Your task to perform on an android device: Go to Reddit.com Image 0: 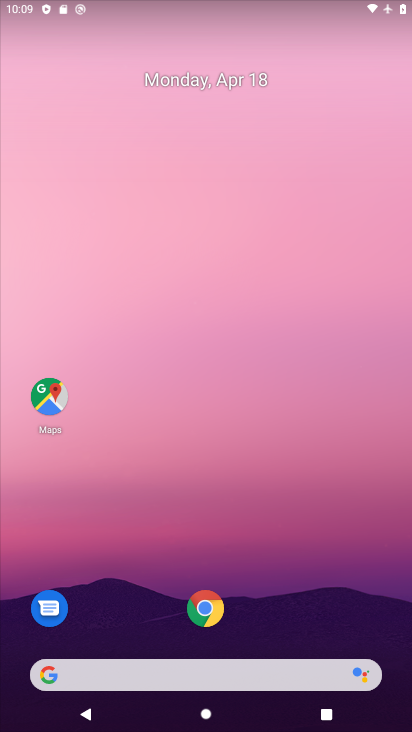
Step 0: click (217, 612)
Your task to perform on an android device: Go to Reddit.com Image 1: 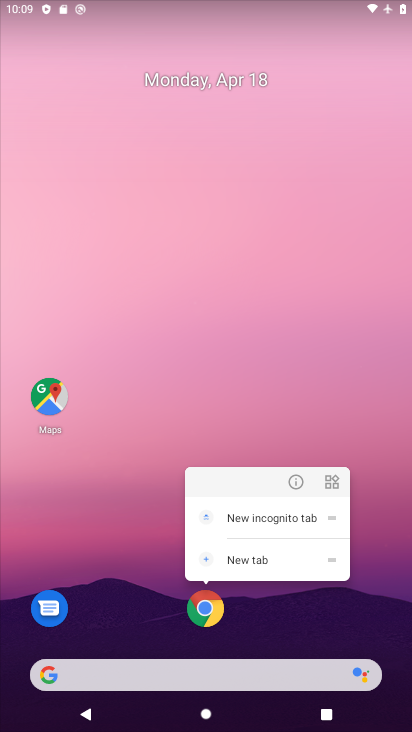
Step 1: click (211, 613)
Your task to perform on an android device: Go to Reddit.com Image 2: 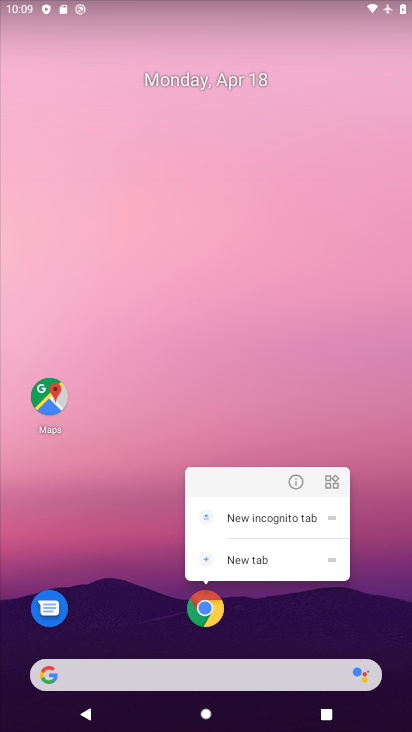
Step 2: click (211, 613)
Your task to perform on an android device: Go to Reddit.com Image 3: 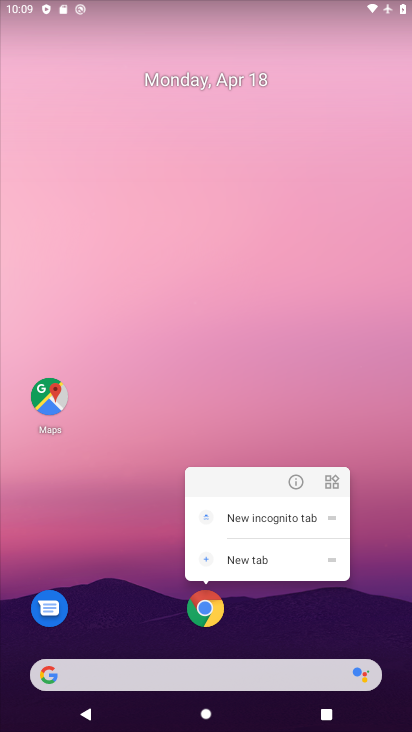
Step 3: click (210, 612)
Your task to perform on an android device: Go to Reddit.com Image 4: 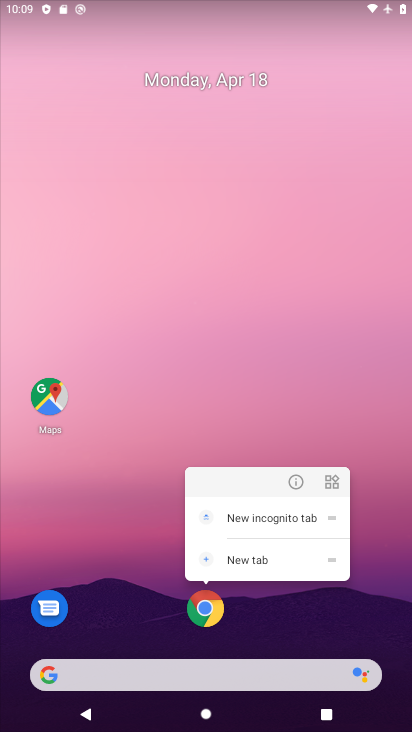
Step 4: click (206, 617)
Your task to perform on an android device: Go to Reddit.com Image 5: 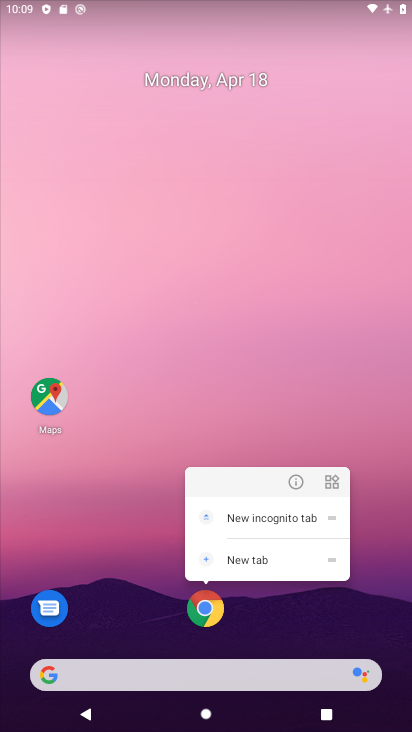
Step 5: click (206, 617)
Your task to perform on an android device: Go to Reddit.com Image 6: 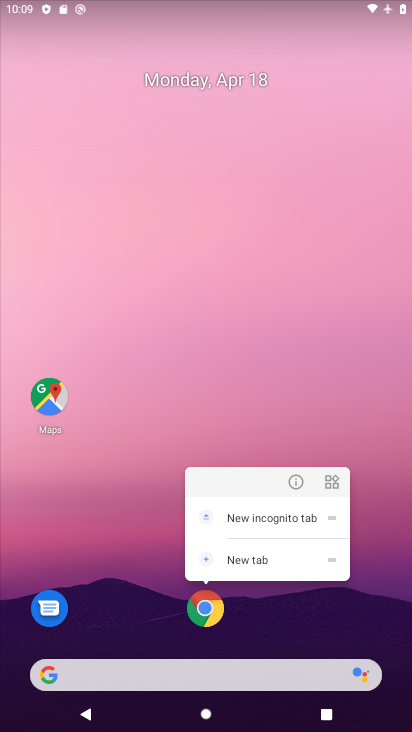
Step 6: click (199, 614)
Your task to perform on an android device: Go to Reddit.com Image 7: 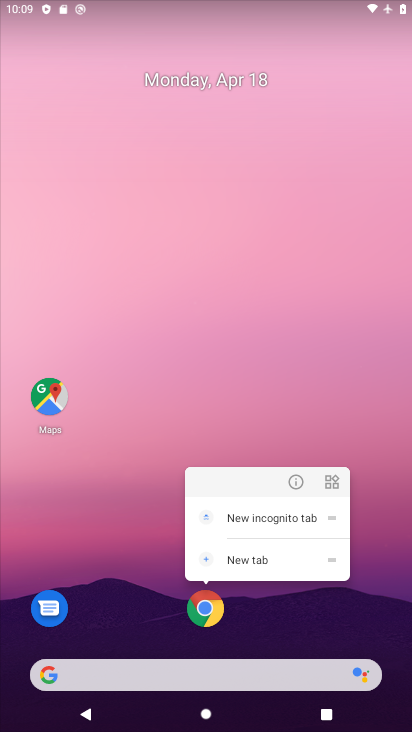
Step 7: click (199, 614)
Your task to perform on an android device: Go to Reddit.com Image 8: 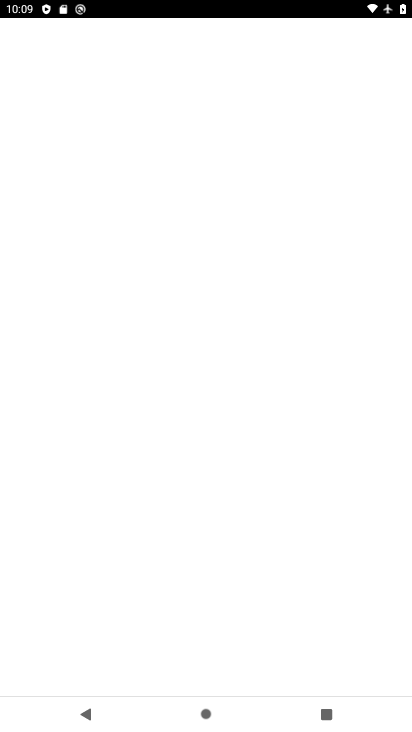
Step 8: click (211, 614)
Your task to perform on an android device: Go to Reddit.com Image 9: 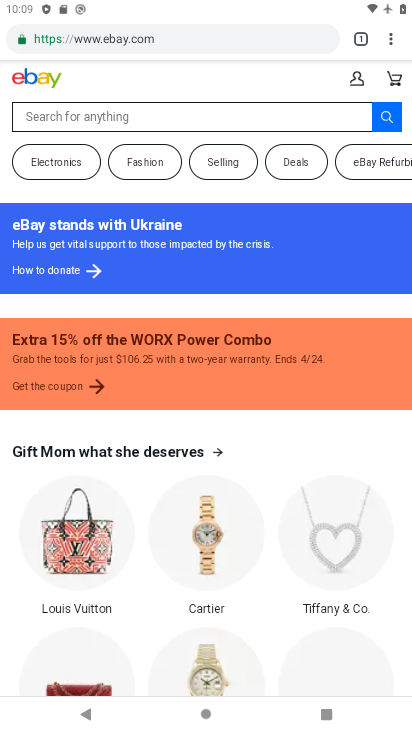
Step 9: click (233, 33)
Your task to perform on an android device: Go to Reddit.com Image 10: 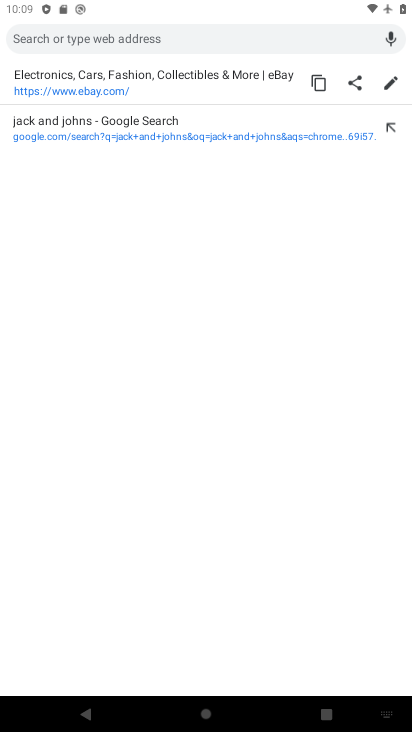
Step 10: type "reddit.com"
Your task to perform on an android device: Go to Reddit.com Image 11: 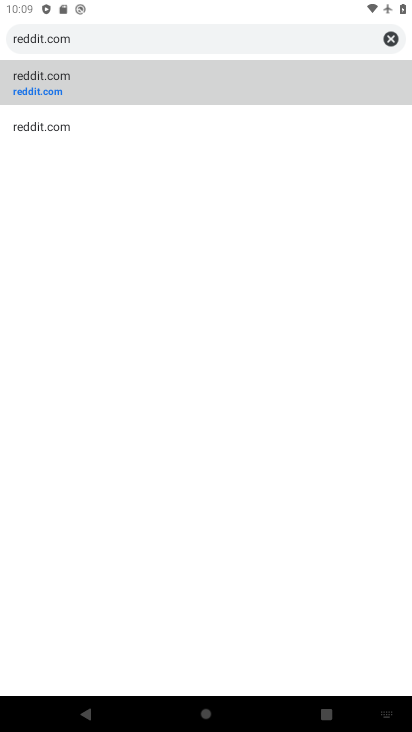
Step 11: click (63, 90)
Your task to perform on an android device: Go to Reddit.com Image 12: 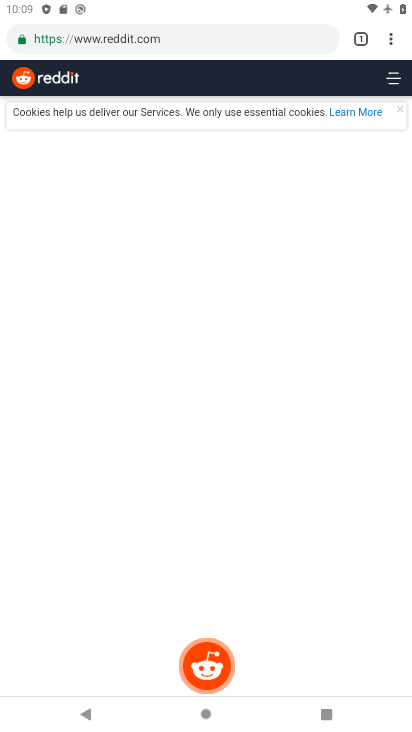
Step 12: task complete